Your task to perform on an android device: Open location settings Image 0: 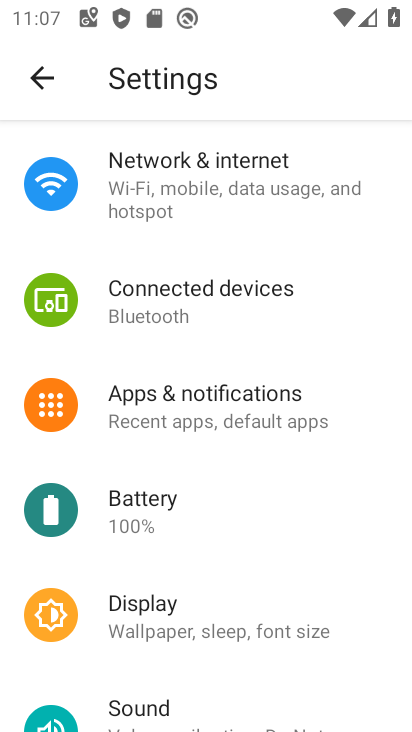
Step 0: drag from (272, 568) to (317, 261)
Your task to perform on an android device: Open location settings Image 1: 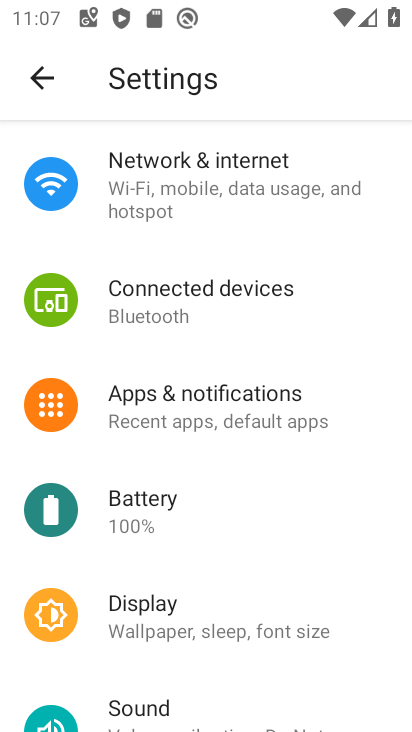
Step 1: drag from (304, 542) to (375, 183)
Your task to perform on an android device: Open location settings Image 2: 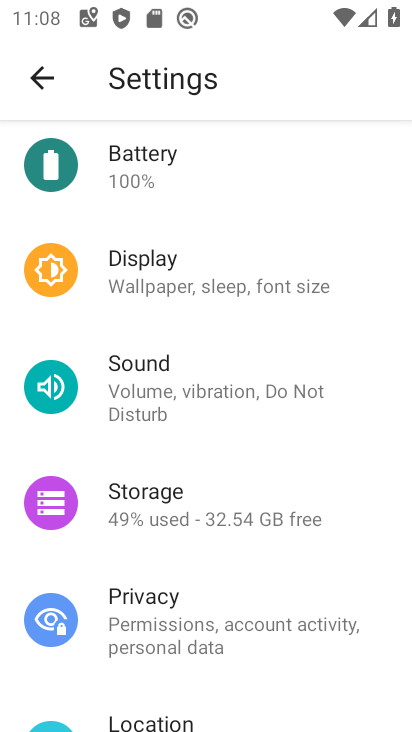
Step 2: drag from (323, 567) to (379, 227)
Your task to perform on an android device: Open location settings Image 3: 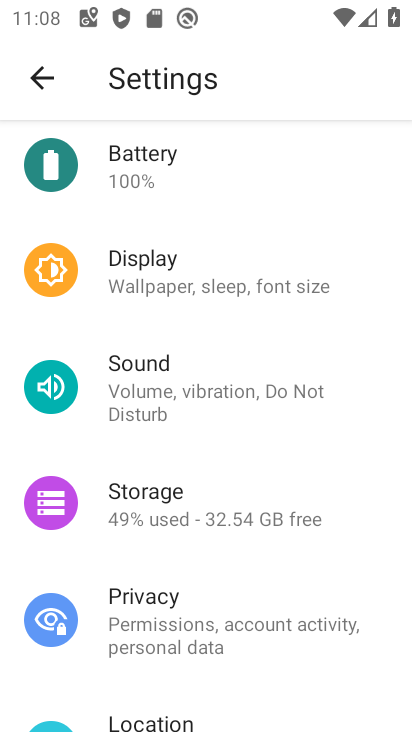
Step 3: click (151, 721)
Your task to perform on an android device: Open location settings Image 4: 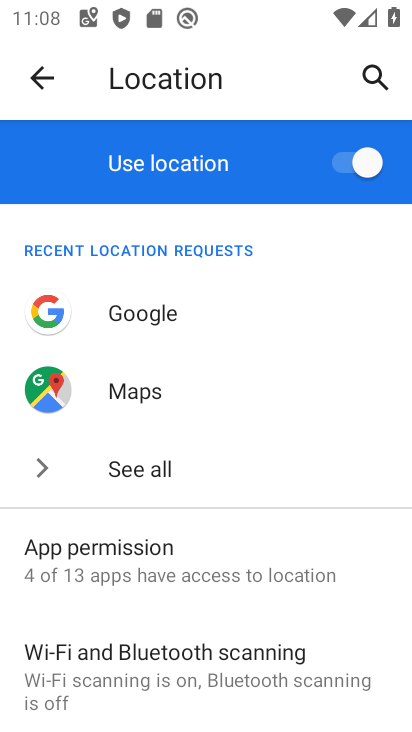
Step 4: task complete